Your task to perform on an android device: When is my next appointment? Image 0: 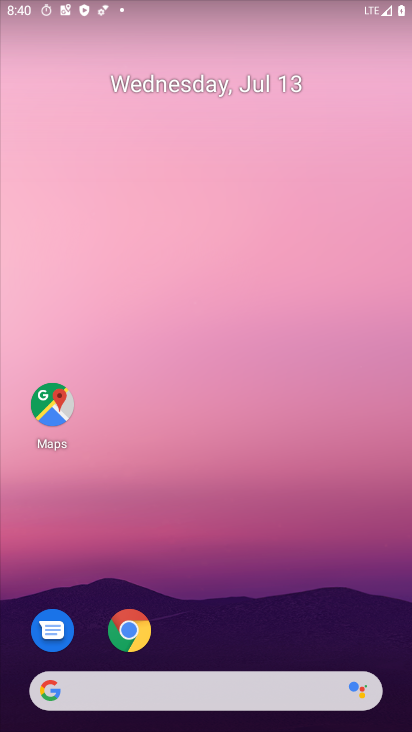
Step 0: drag from (355, 599) to (380, 122)
Your task to perform on an android device: When is my next appointment? Image 1: 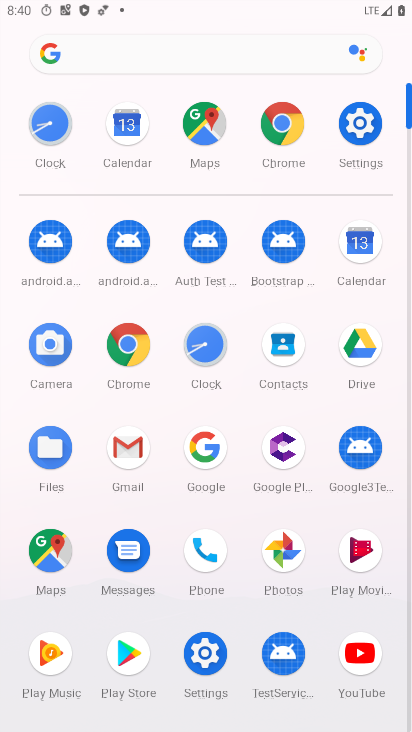
Step 1: click (356, 241)
Your task to perform on an android device: When is my next appointment? Image 2: 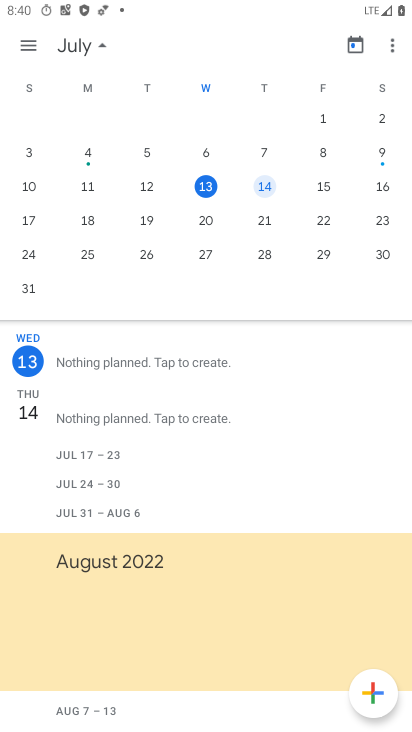
Step 2: task complete